Your task to perform on an android device: Show me productivity apps on the Play Store Image 0: 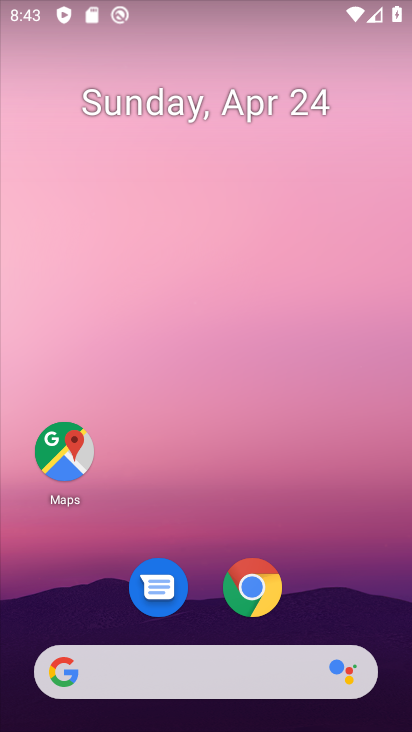
Step 0: drag from (349, 611) to (292, 133)
Your task to perform on an android device: Show me productivity apps on the Play Store Image 1: 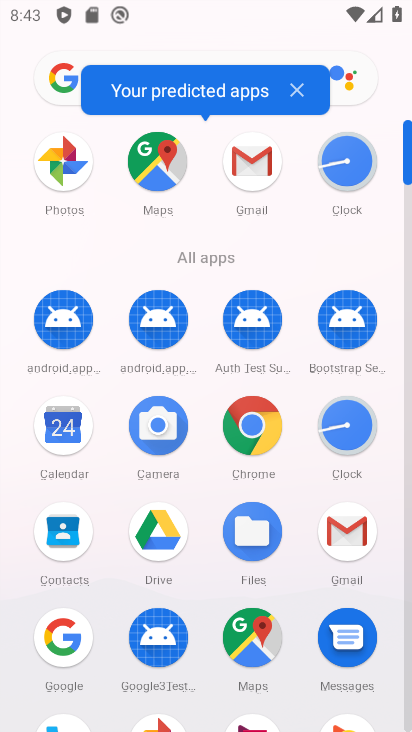
Step 1: click (407, 694)
Your task to perform on an android device: Show me productivity apps on the Play Store Image 2: 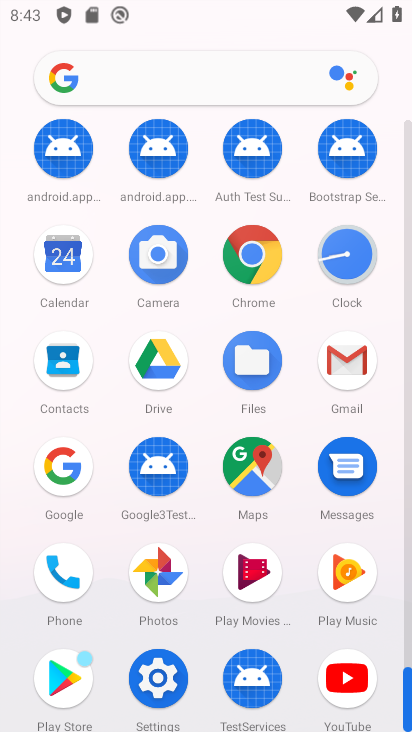
Step 2: click (84, 677)
Your task to perform on an android device: Show me productivity apps on the Play Store Image 3: 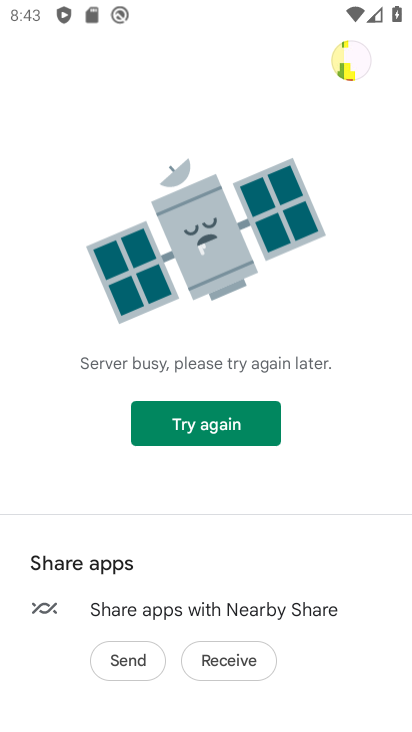
Step 3: click (237, 439)
Your task to perform on an android device: Show me productivity apps on the Play Store Image 4: 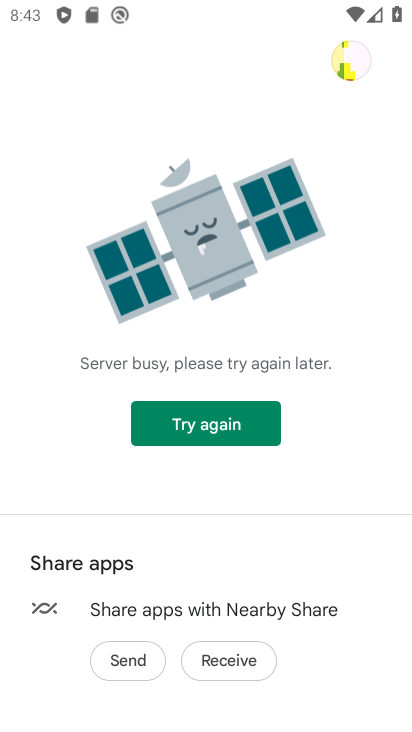
Step 4: task complete